Your task to perform on an android device: turn on priority inbox in the gmail app Image 0: 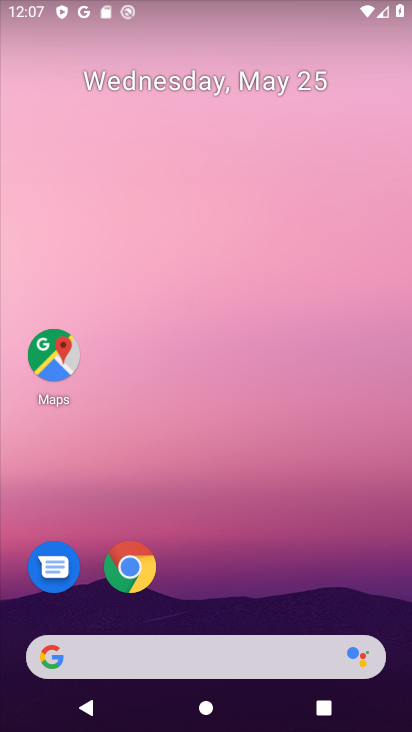
Step 0: drag from (230, 595) to (257, 34)
Your task to perform on an android device: turn on priority inbox in the gmail app Image 1: 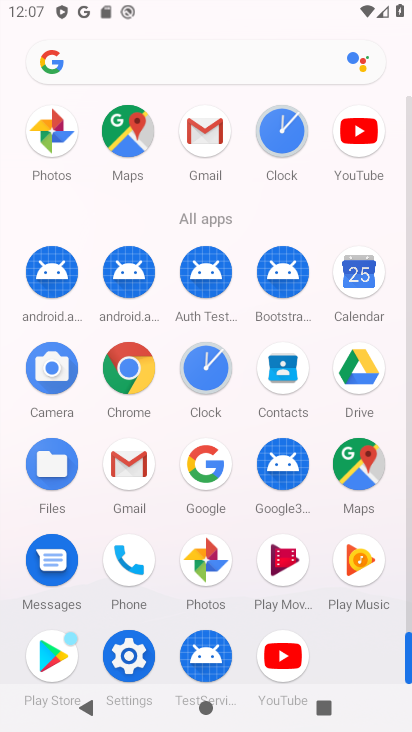
Step 1: click (203, 133)
Your task to perform on an android device: turn on priority inbox in the gmail app Image 2: 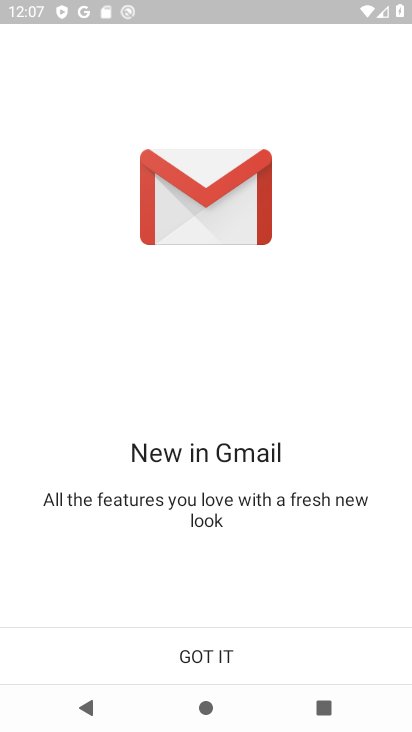
Step 2: click (217, 659)
Your task to perform on an android device: turn on priority inbox in the gmail app Image 3: 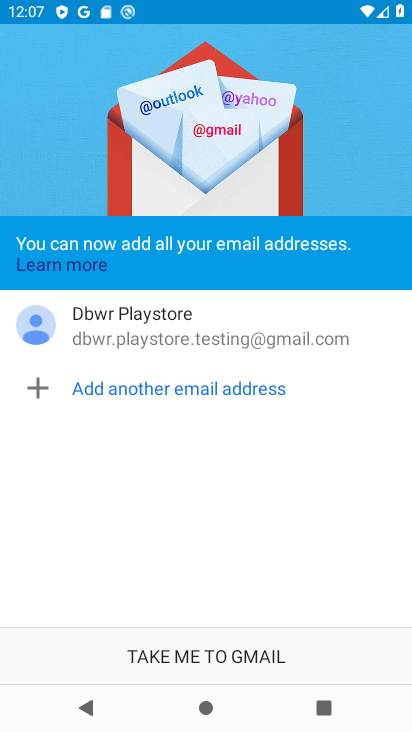
Step 3: click (217, 659)
Your task to perform on an android device: turn on priority inbox in the gmail app Image 4: 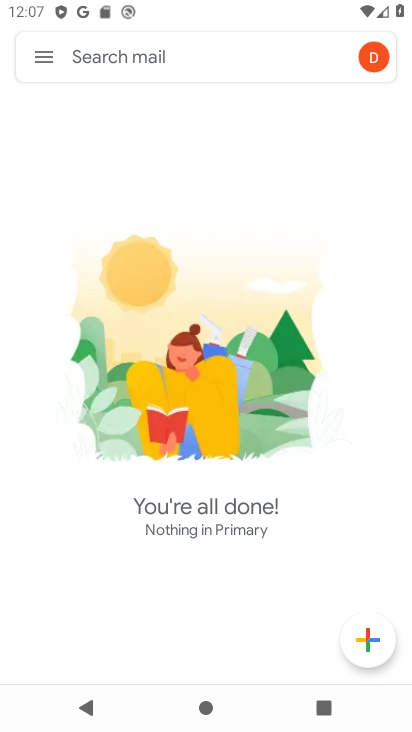
Step 4: click (43, 60)
Your task to perform on an android device: turn on priority inbox in the gmail app Image 5: 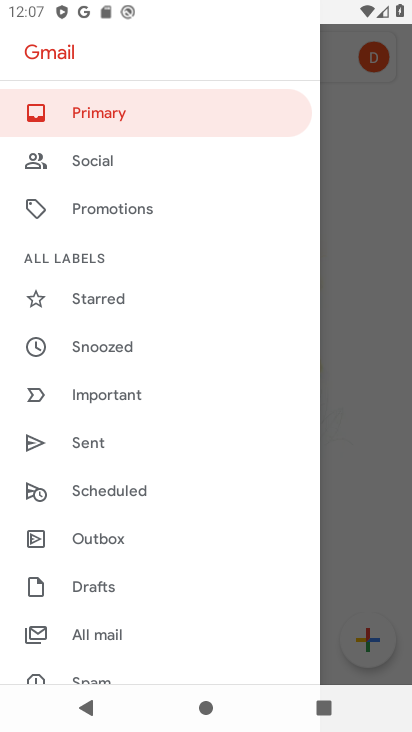
Step 5: drag from (105, 566) to (137, 415)
Your task to perform on an android device: turn on priority inbox in the gmail app Image 6: 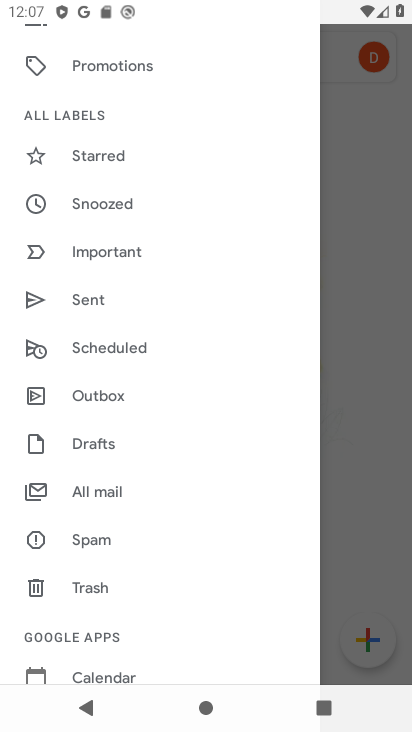
Step 6: drag from (103, 556) to (116, 466)
Your task to perform on an android device: turn on priority inbox in the gmail app Image 7: 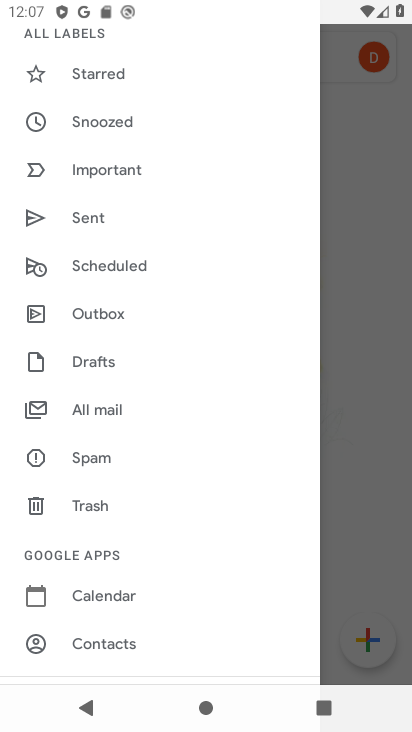
Step 7: drag from (118, 529) to (107, 438)
Your task to perform on an android device: turn on priority inbox in the gmail app Image 8: 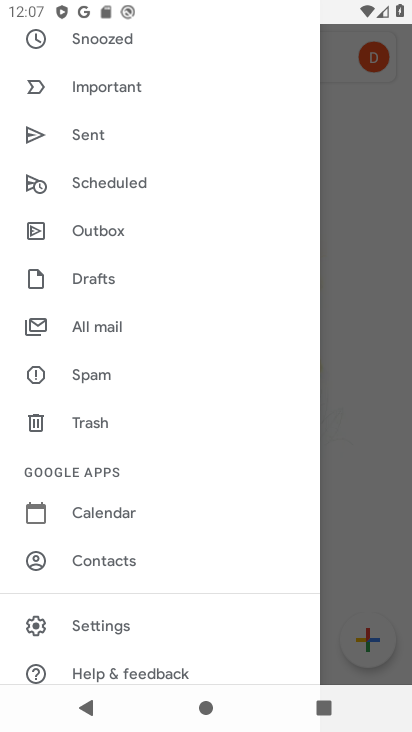
Step 8: click (105, 623)
Your task to perform on an android device: turn on priority inbox in the gmail app Image 9: 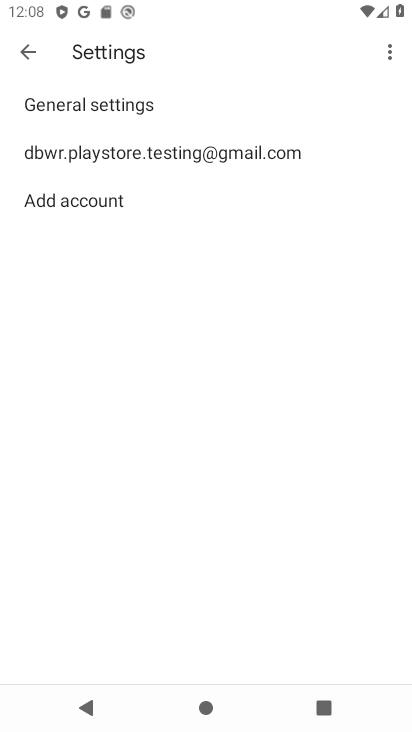
Step 9: click (141, 157)
Your task to perform on an android device: turn on priority inbox in the gmail app Image 10: 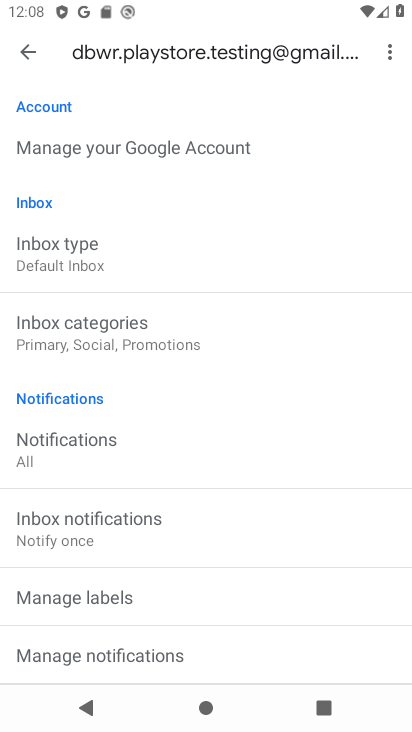
Step 10: click (67, 256)
Your task to perform on an android device: turn on priority inbox in the gmail app Image 11: 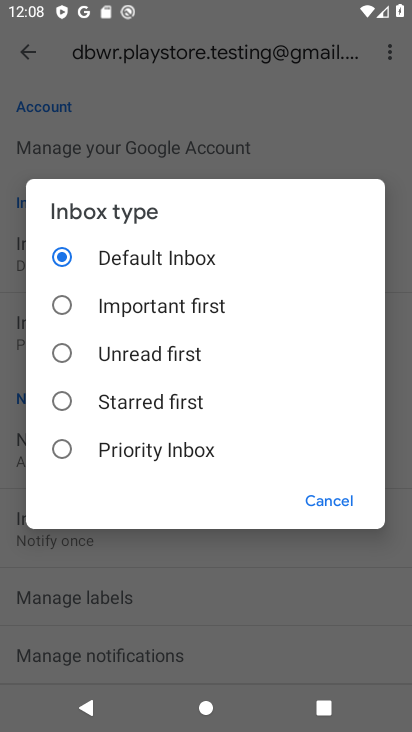
Step 11: click (59, 444)
Your task to perform on an android device: turn on priority inbox in the gmail app Image 12: 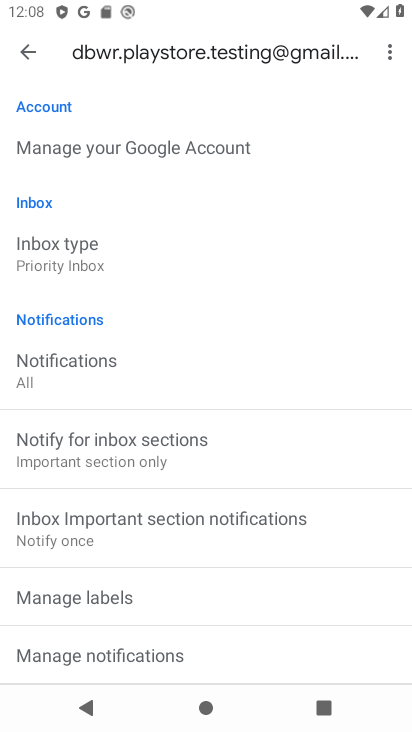
Step 12: task complete